Your task to perform on an android device: move a message to another label in the gmail app Image 0: 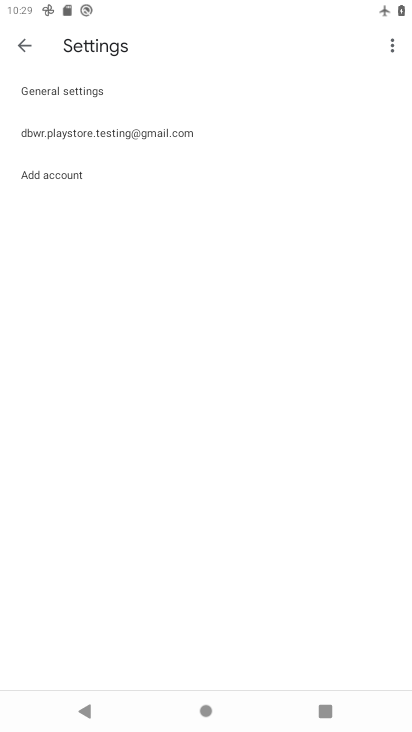
Step 0: click (25, 46)
Your task to perform on an android device: move a message to another label in the gmail app Image 1: 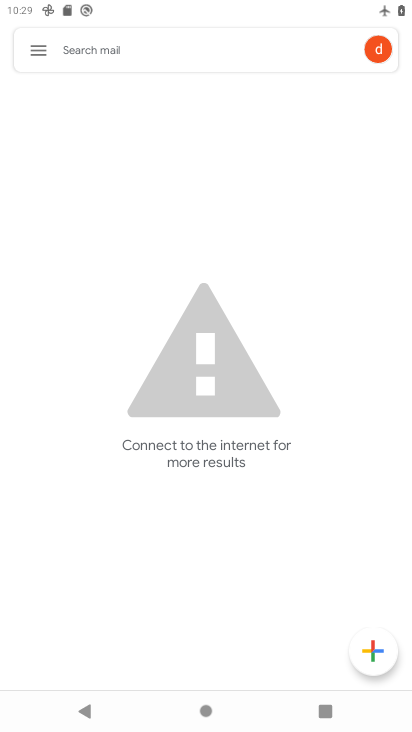
Step 1: press back button
Your task to perform on an android device: move a message to another label in the gmail app Image 2: 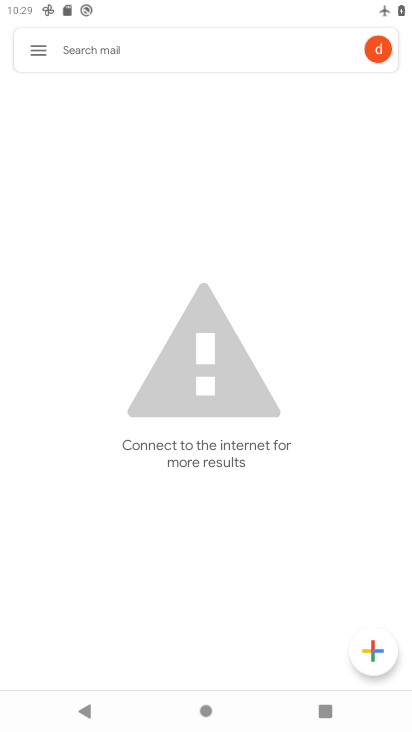
Step 2: press back button
Your task to perform on an android device: move a message to another label in the gmail app Image 3: 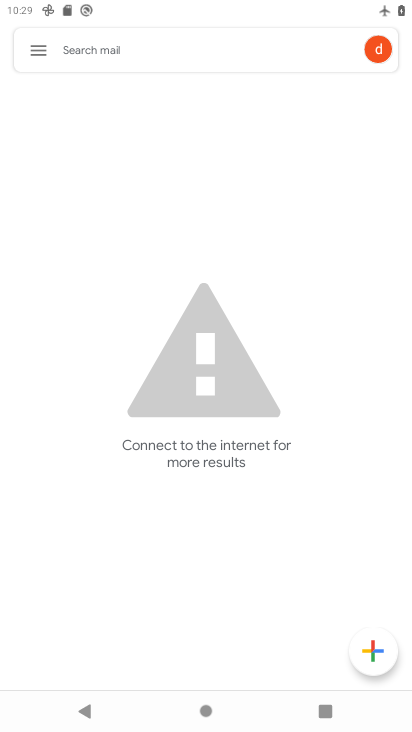
Step 3: press back button
Your task to perform on an android device: move a message to another label in the gmail app Image 4: 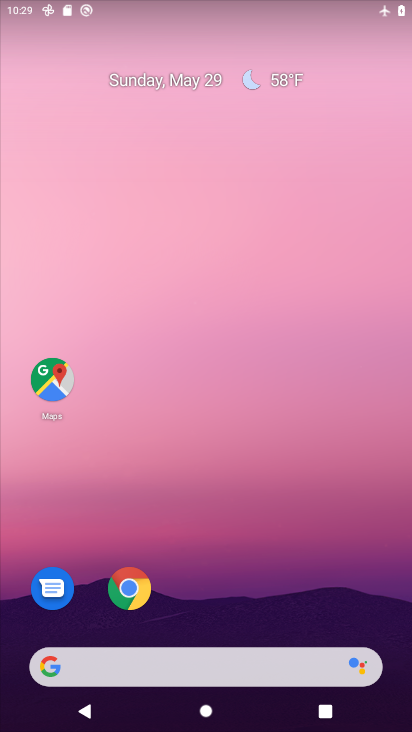
Step 4: drag from (276, 653) to (168, 46)
Your task to perform on an android device: move a message to another label in the gmail app Image 5: 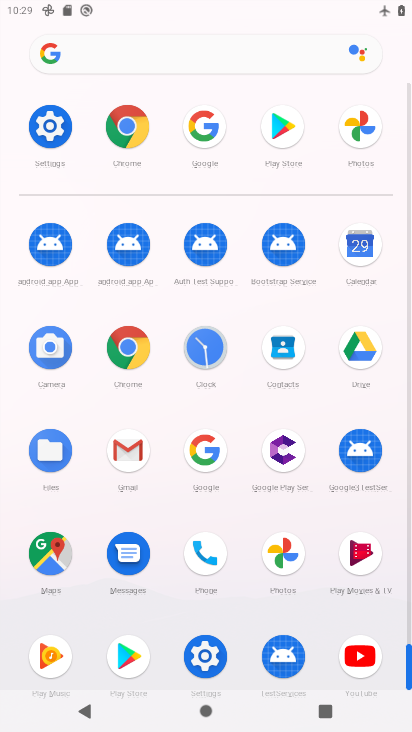
Step 5: click (136, 453)
Your task to perform on an android device: move a message to another label in the gmail app Image 6: 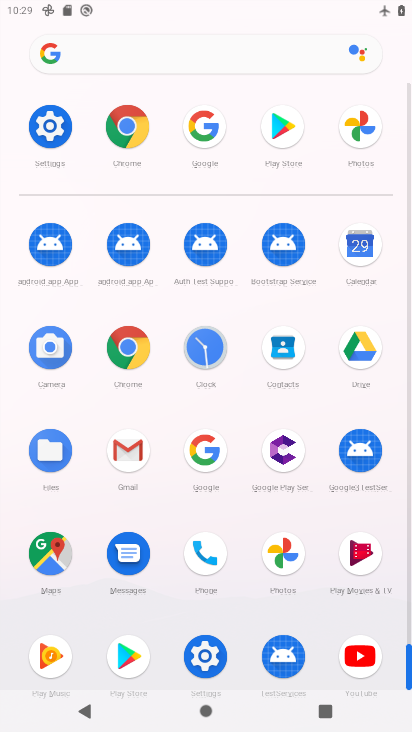
Step 6: click (136, 453)
Your task to perform on an android device: move a message to another label in the gmail app Image 7: 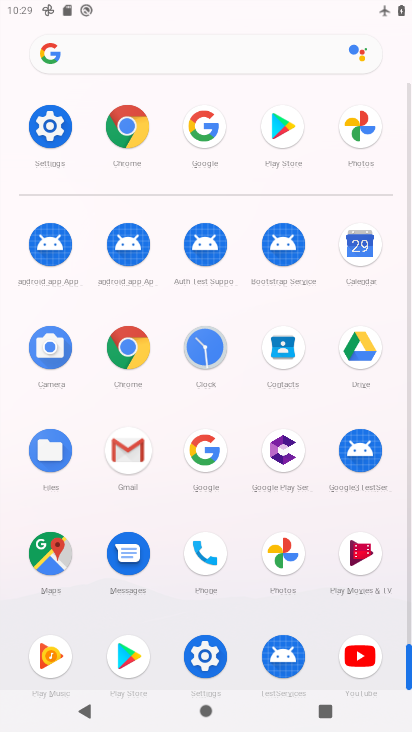
Step 7: click (136, 453)
Your task to perform on an android device: move a message to another label in the gmail app Image 8: 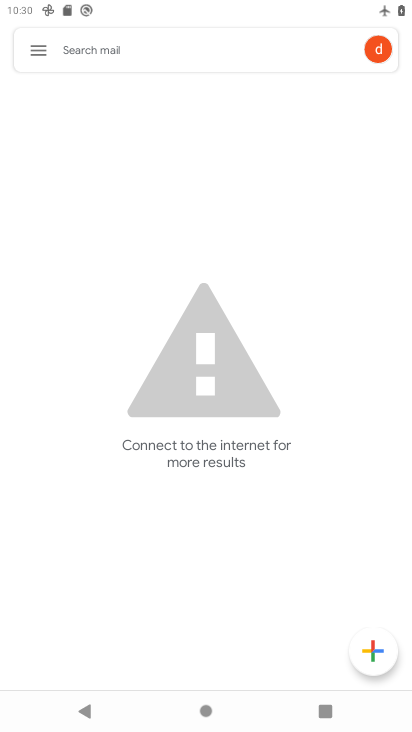
Step 8: press back button
Your task to perform on an android device: move a message to another label in the gmail app Image 9: 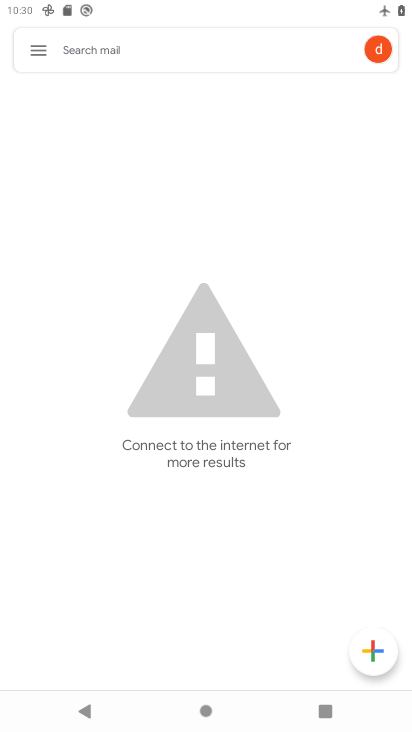
Step 9: press back button
Your task to perform on an android device: move a message to another label in the gmail app Image 10: 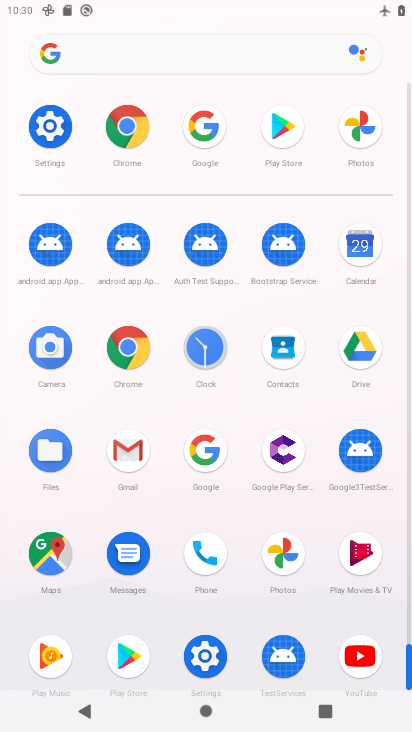
Step 10: press back button
Your task to perform on an android device: move a message to another label in the gmail app Image 11: 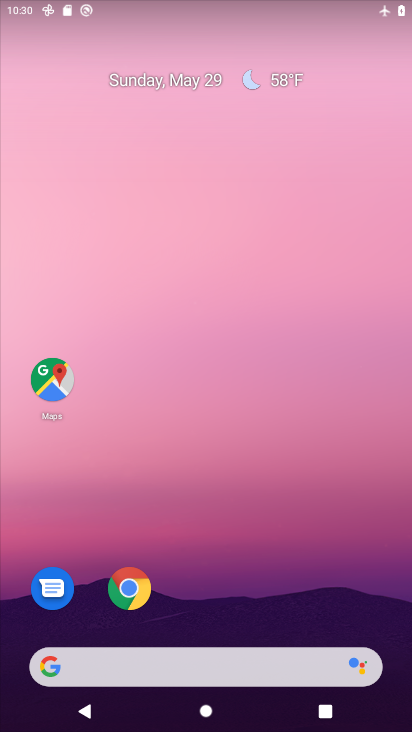
Step 11: drag from (275, 688) to (228, 57)
Your task to perform on an android device: move a message to another label in the gmail app Image 12: 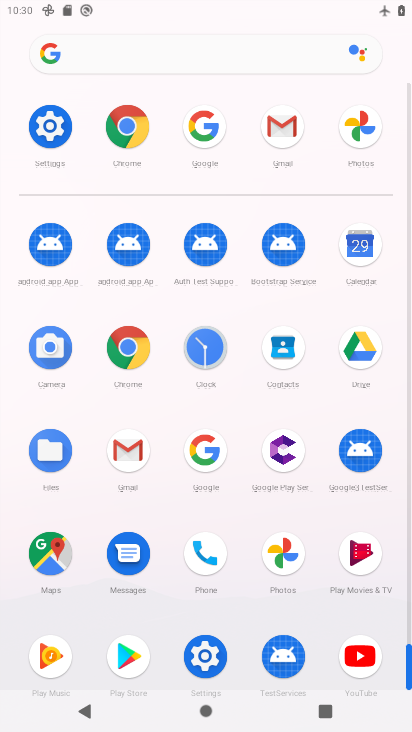
Step 12: click (130, 448)
Your task to perform on an android device: move a message to another label in the gmail app Image 13: 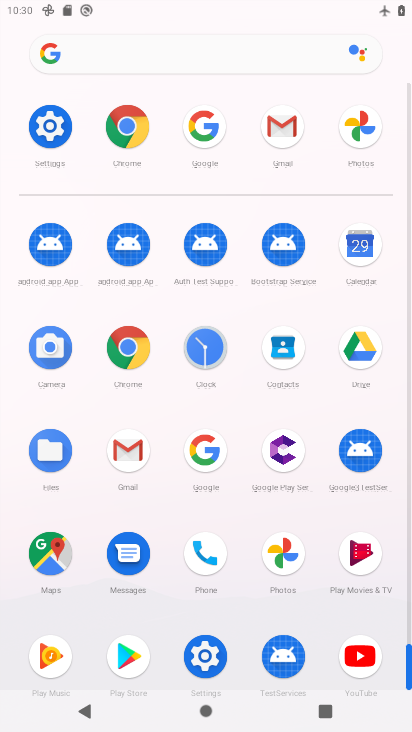
Step 13: click (135, 442)
Your task to perform on an android device: move a message to another label in the gmail app Image 14: 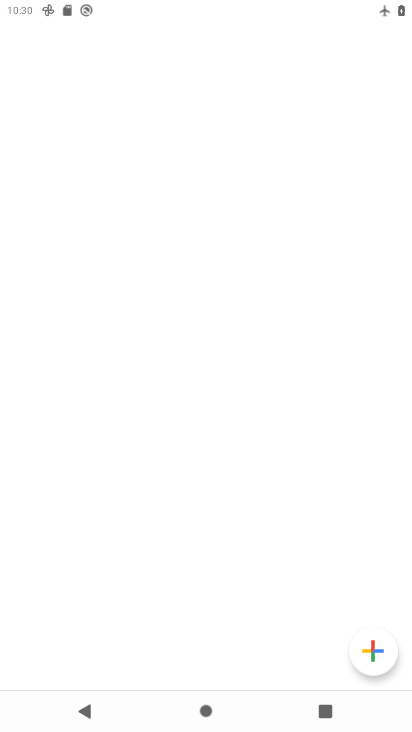
Step 14: click (132, 439)
Your task to perform on an android device: move a message to another label in the gmail app Image 15: 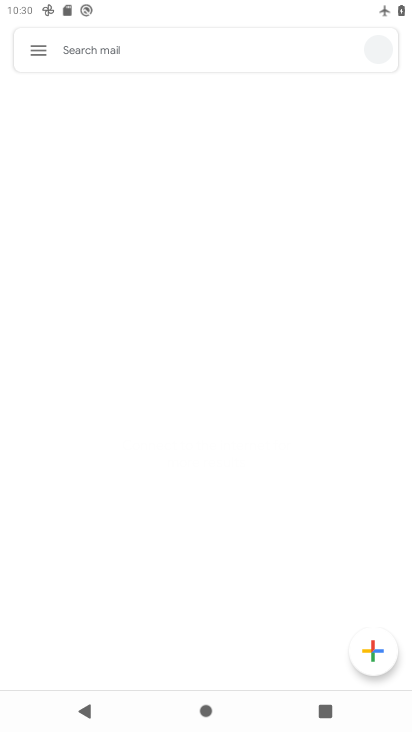
Step 15: click (129, 436)
Your task to perform on an android device: move a message to another label in the gmail app Image 16: 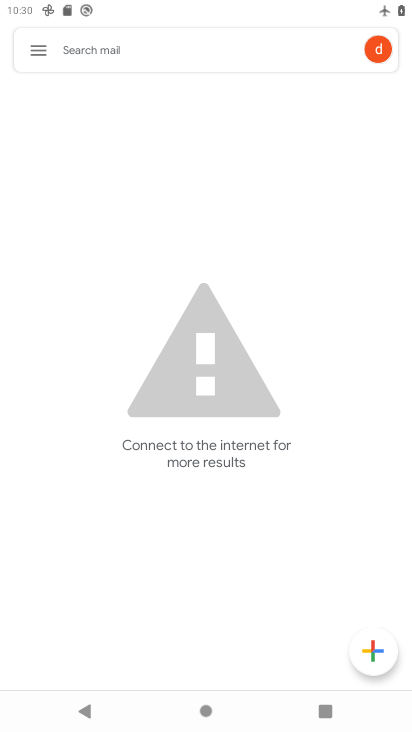
Step 16: drag from (35, 44) to (60, 90)
Your task to perform on an android device: move a message to another label in the gmail app Image 17: 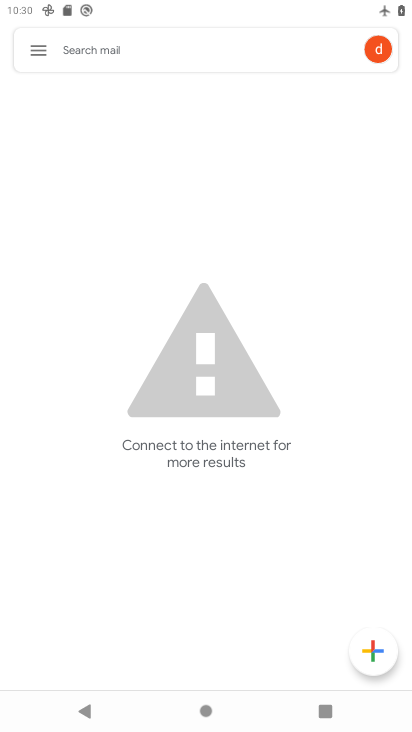
Step 17: click (45, 55)
Your task to perform on an android device: move a message to another label in the gmail app Image 18: 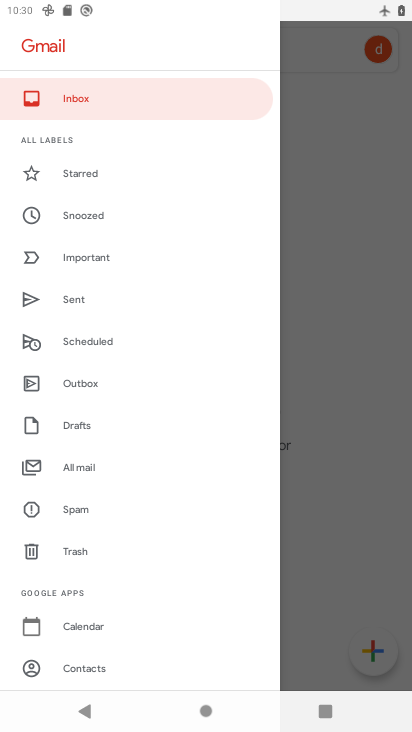
Step 18: click (88, 463)
Your task to perform on an android device: move a message to another label in the gmail app Image 19: 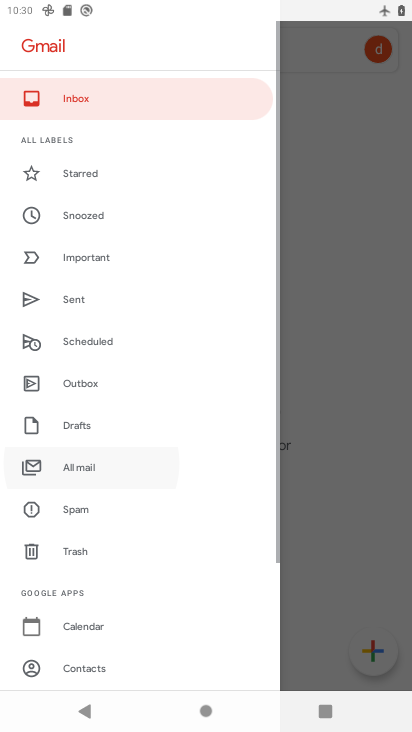
Step 19: click (88, 463)
Your task to perform on an android device: move a message to another label in the gmail app Image 20: 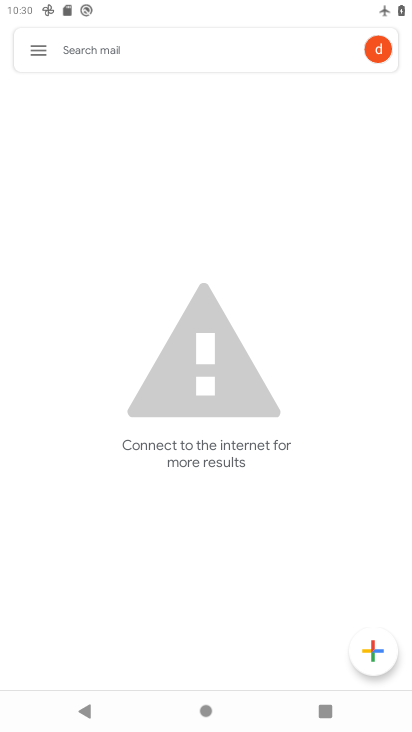
Step 20: task complete